Your task to perform on an android device: Open Google Chrome Image 0: 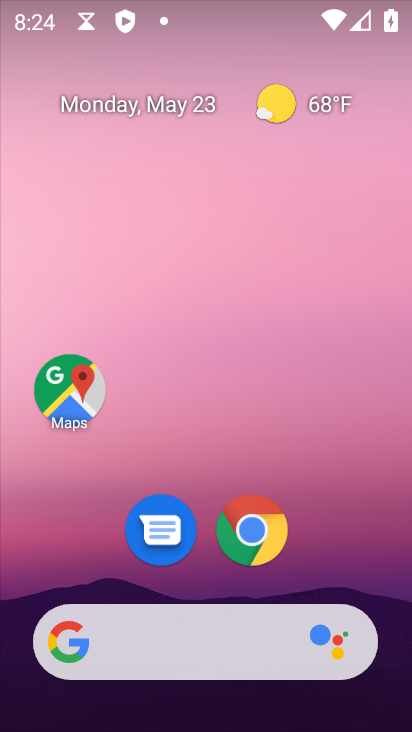
Step 0: click (396, 29)
Your task to perform on an android device: Open Google Chrome Image 1: 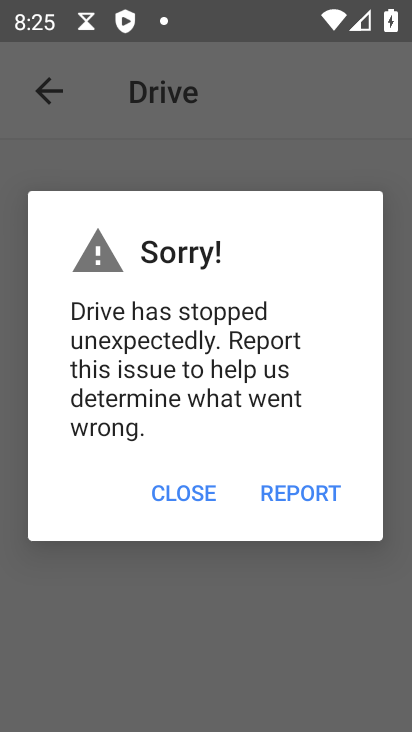
Step 1: press home button
Your task to perform on an android device: Open Google Chrome Image 2: 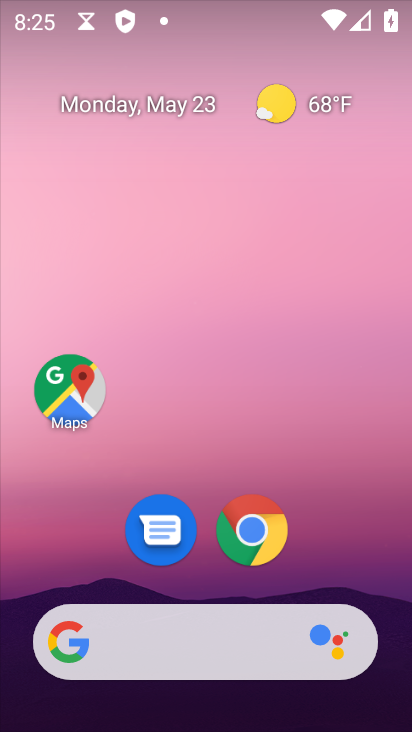
Step 2: drag from (94, 533) to (206, 5)
Your task to perform on an android device: Open Google Chrome Image 3: 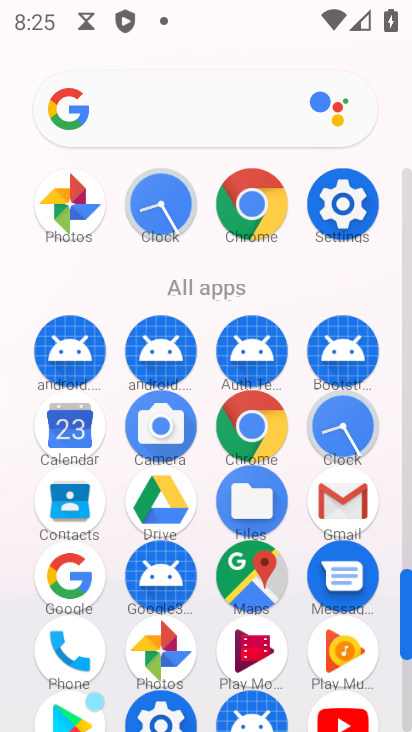
Step 3: click (251, 431)
Your task to perform on an android device: Open Google Chrome Image 4: 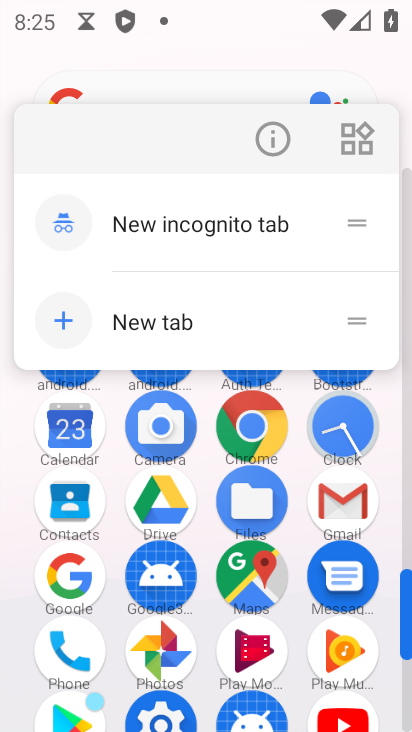
Step 4: click (264, 435)
Your task to perform on an android device: Open Google Chrome Image 5: 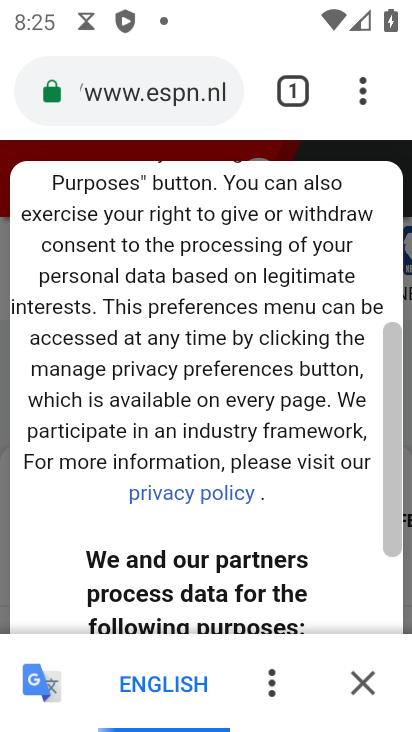
Step 5: drag from (108, 545) to (217, 91)
Your task to perform on an android device: Open Google Chrome Image 6: 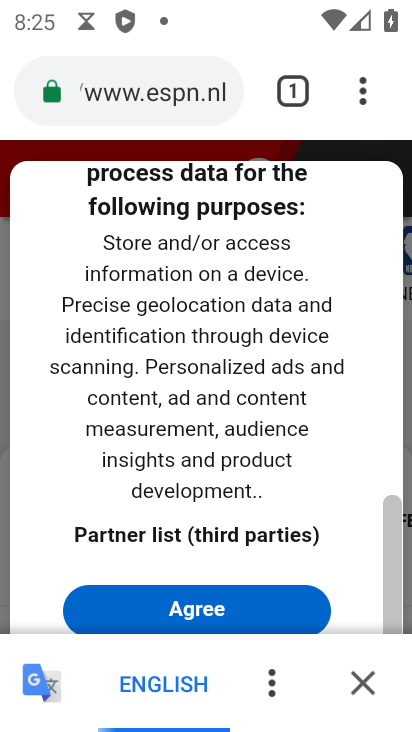
Step 6: click (234, 607)
Your task to perform on an android device: Open Google Chrome Image 7: 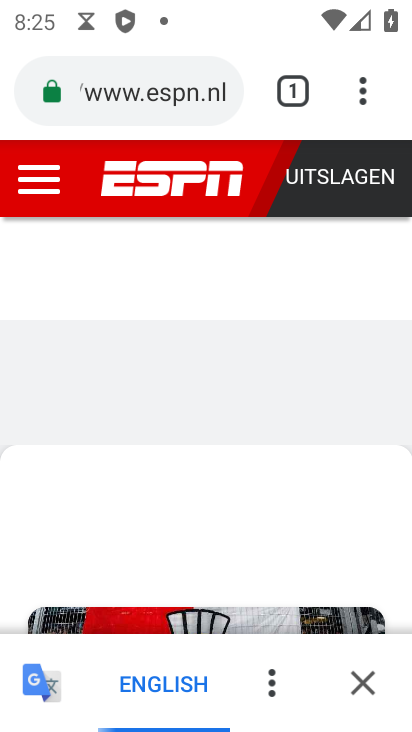
Step 7: task complete